Your task to perform on an android device: Open location settings Image 0: 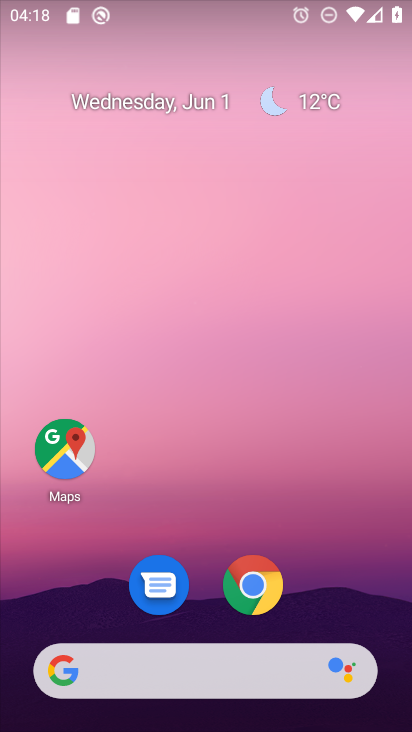
Step 0: drag from (243, 492) to (230, 29)
Your task to perform on an android device: Open location settings Image 1: 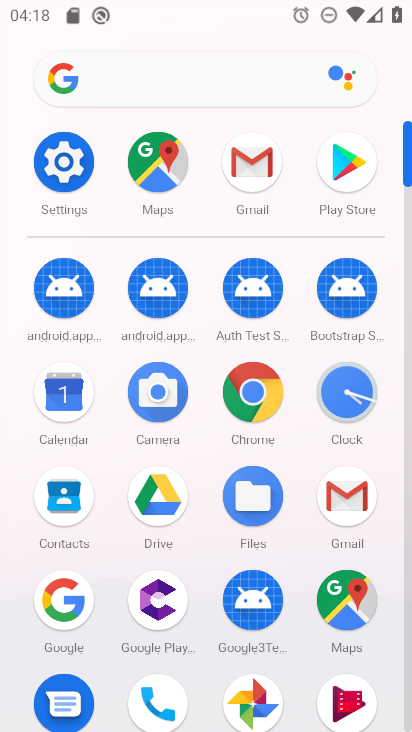
Step 1: click (57, 171)
Your task to perform on an android device: Open location settings Image 2: 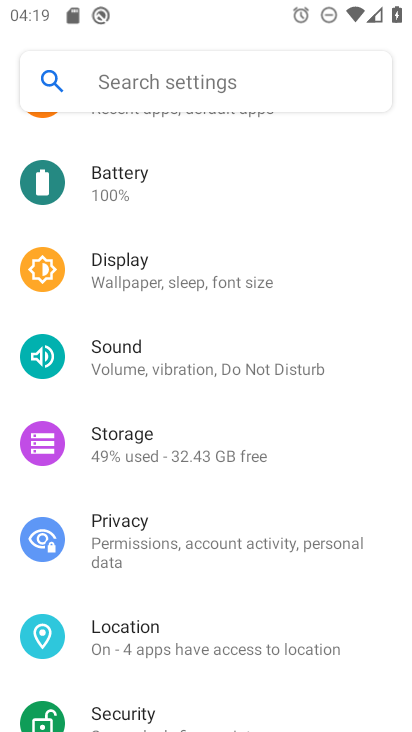
Step 2: click (218, 635)
Your task to perform on an android device: Open location settings Image 3: 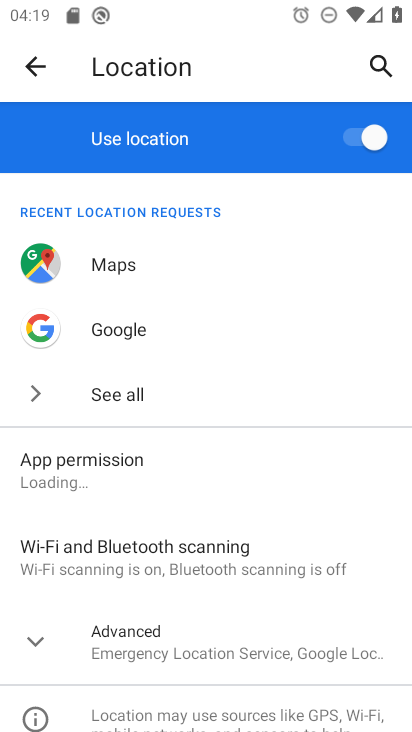
Step 3: task complete